Your task to perform on an android device: create a new album in the google photos Image 0: 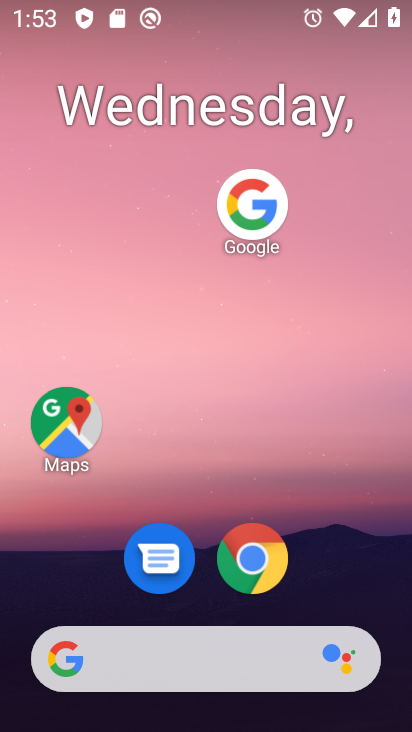
Step 0: drag from (396, 573) to (364, 200)
Your task to perform on an android device: create a new album in the google photos Image 1: 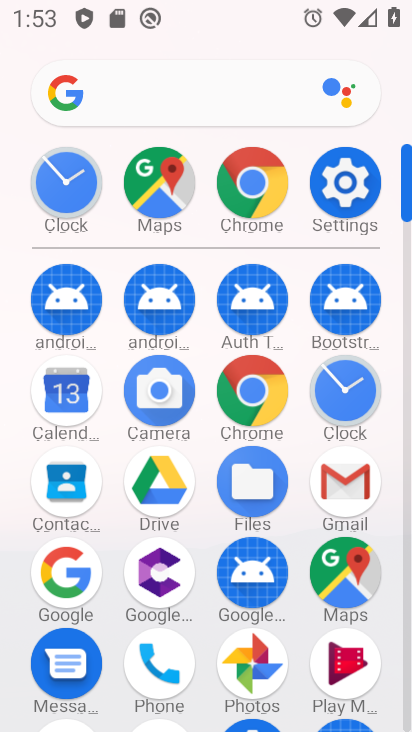
Step 1: click (272, 667)
Your task to perform on an android device: create a new album in the google photos Image 2: 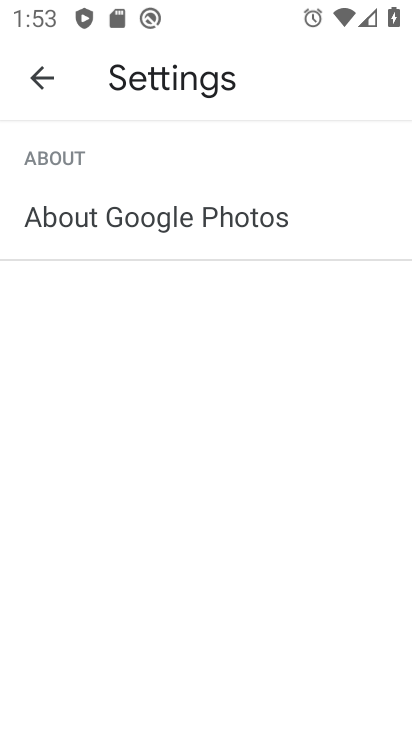
Step 2: click (46, 69)
Your task to perform on an android device: create a new album in the google photos Image 3: 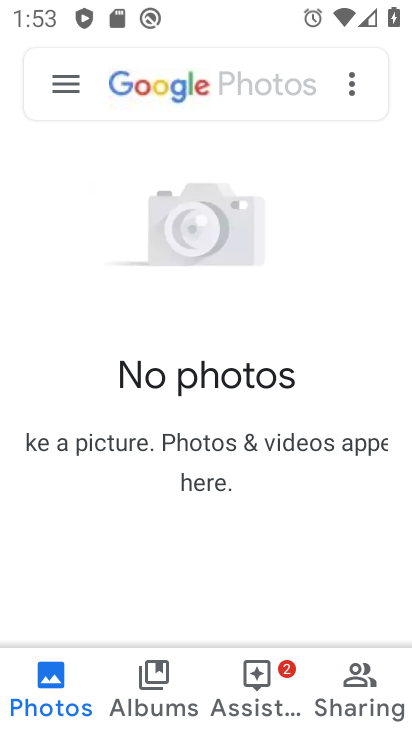
Step 3: click (169, 677)
Your task to perform on an android device: create a new album in the google photos Image 4: 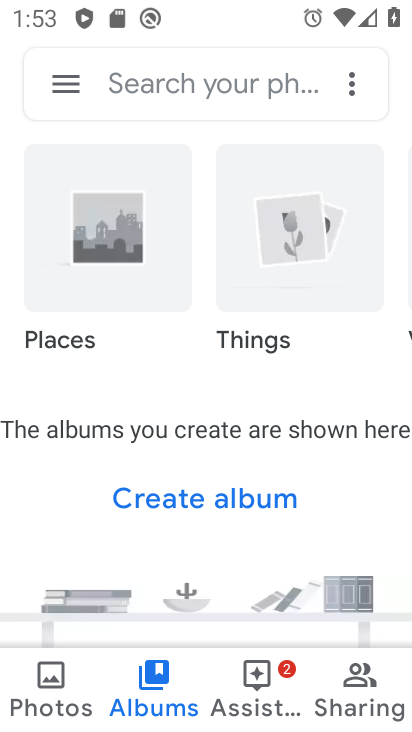
Step 4: click (241, 496)
Your task to perform on an android device: create a new album in the google photos Image 5: 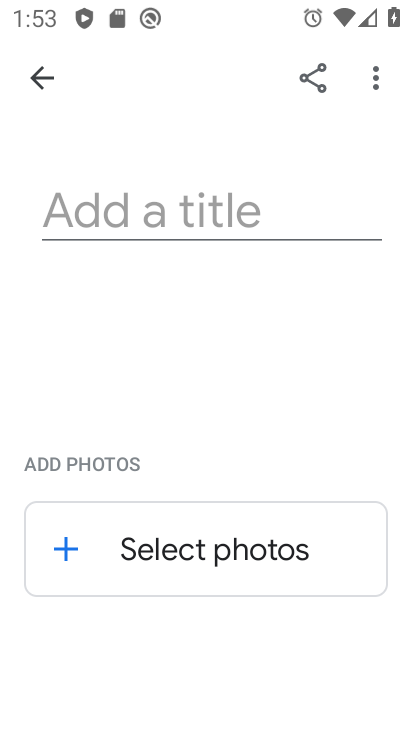
Step 5: click (212, 219)
Your task to perform on an android device: create a new album in the google photos Image 6: 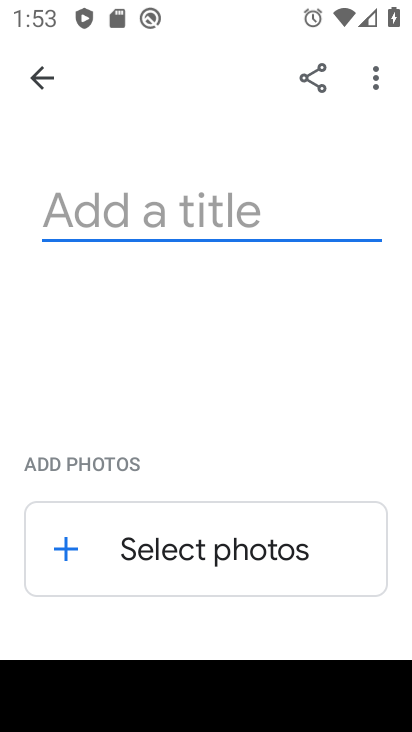
Step 6: type "bhkbkbbbj"
Your task to perform on an android device: create a new album in the google photos Image 7: 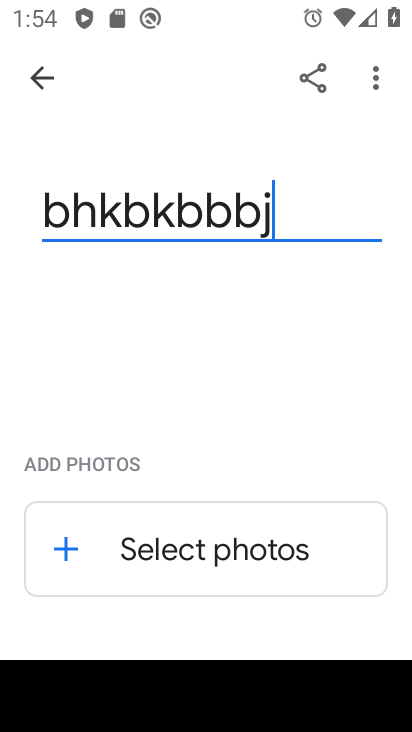
Step 7: click (301, 541)
Your task to perform on an android device: create a new album in the google photos Image 8: 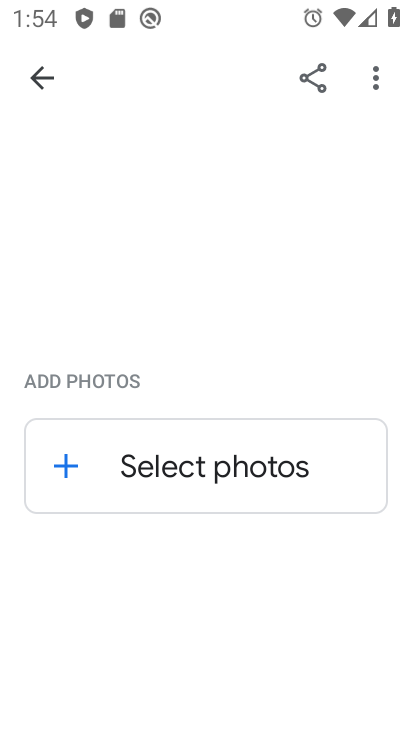
Step 8: click (205, 484)
Your task to perform on an android device: create a new album in the google photos Image 9: 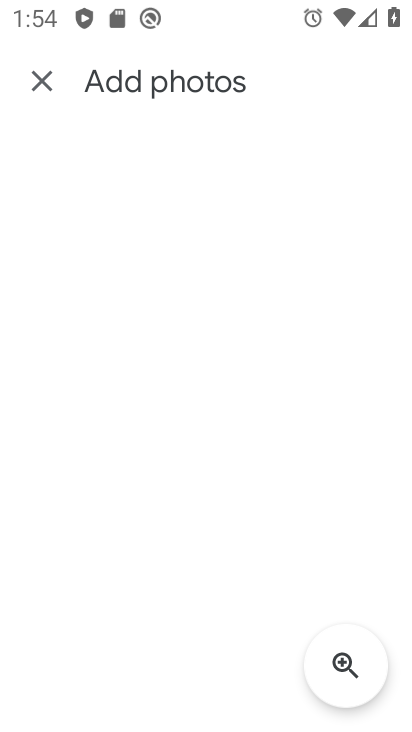
Step 9: task complete